Your task to perform on an android device: toggle javascript in the chrome app Image 0: 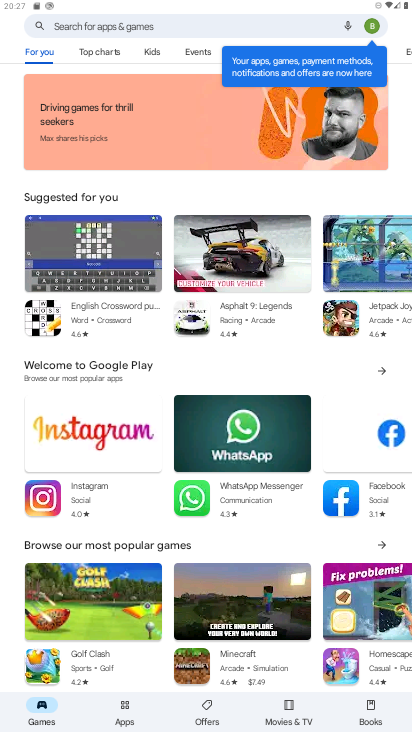
Step 0: press home button
Your task to perform on an android device: toggle javascript in the chrome app Image 1: 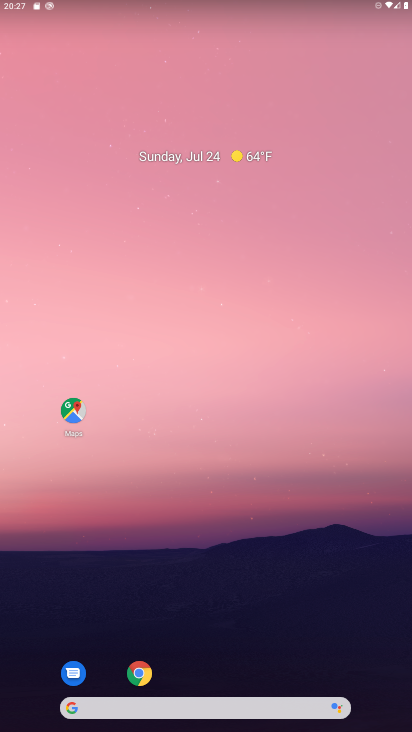
Step 1: click (139, 674)
Your task to perform on an android device: toggle javascript in the chrome app Image 2: 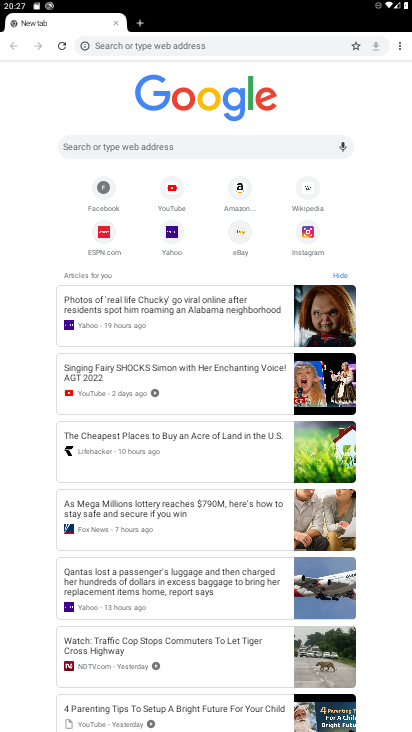
Step 2: click (401, 44)
Your task to perform on an android device: toggle javascript in the chrome app Image 3: 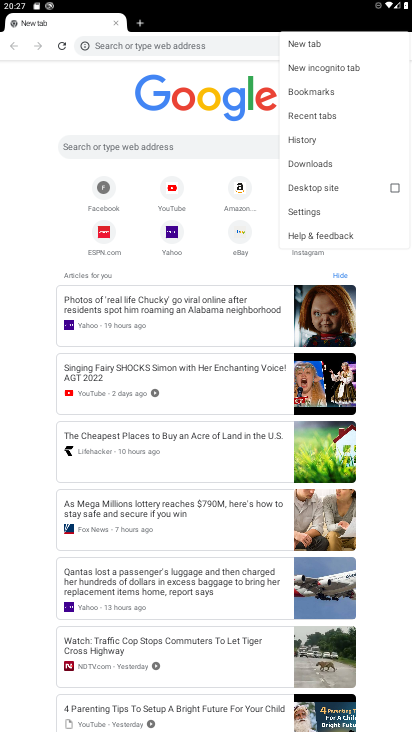
Step 3: click (318, 207)
Your task to perform on an android device: toggle javascript in the chrome app Image 4: 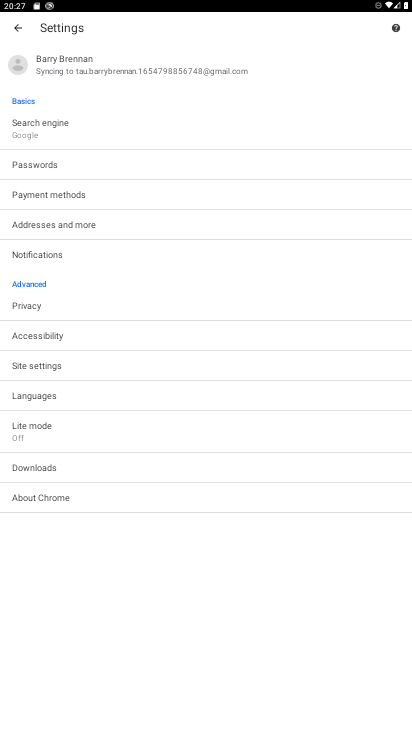
Step 4: click (98, 370)
Your task to perform on an android device: toggle javascript in the chrome app Image 5: 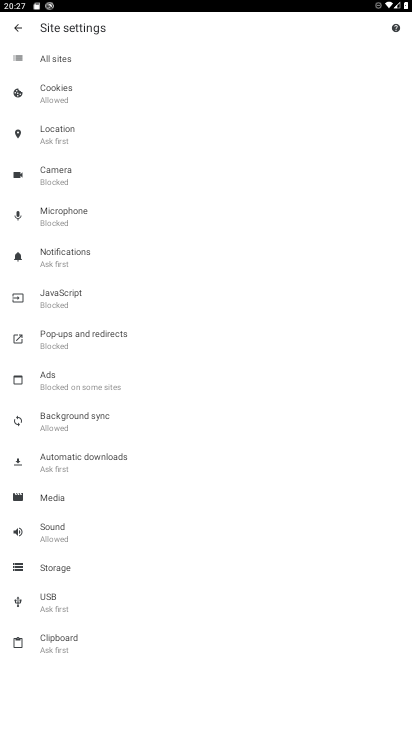
Step 5: click (80, 289)
Your task to perform on an android device: toggle javascript in the chrome app Image 6: 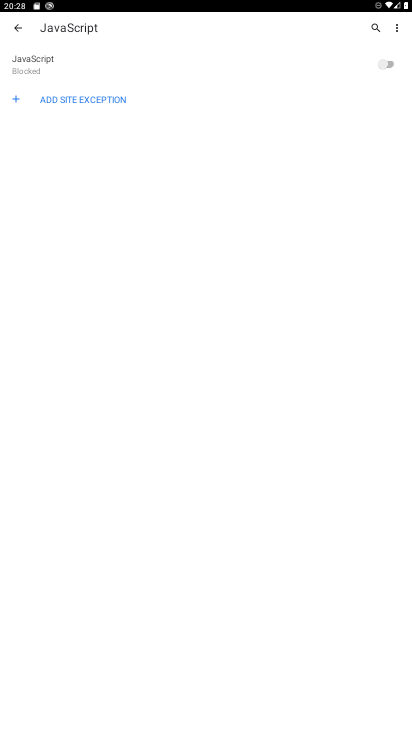
Step 6: click (396, 63)
Your task to perform on an android device: toggle javascript in the chrome app Image 7: 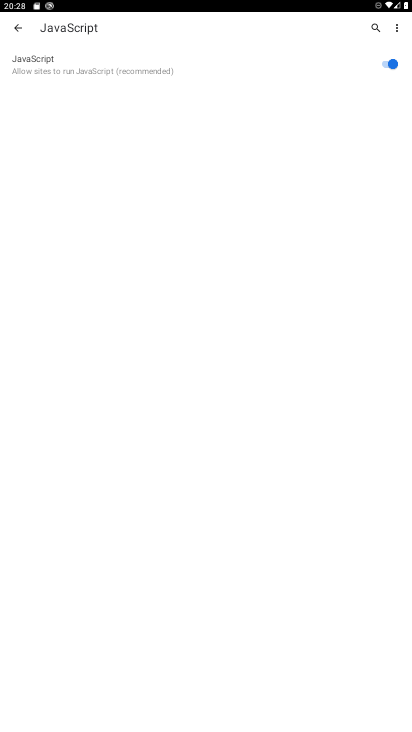
Step 7: task complete